Your task to perform on an android device: Open Google Chrome Image 0: 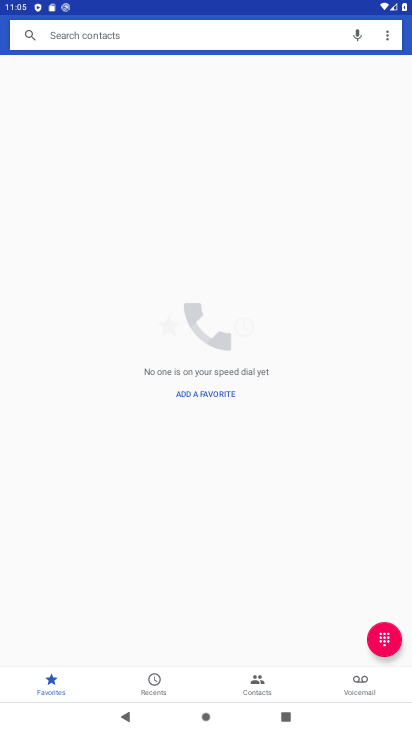
Step 0: press home button
Your task to perform on an android device: Open Google Chrome Image 1: 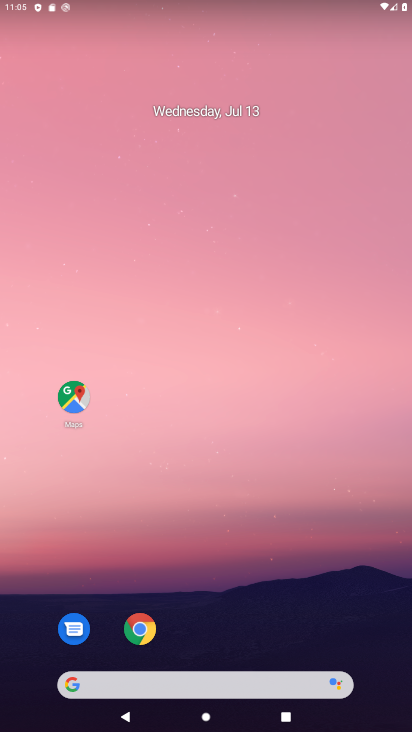
Step 1: click (144, 623)
Your task to perform on an android device: Open Google Chrome Image 2: 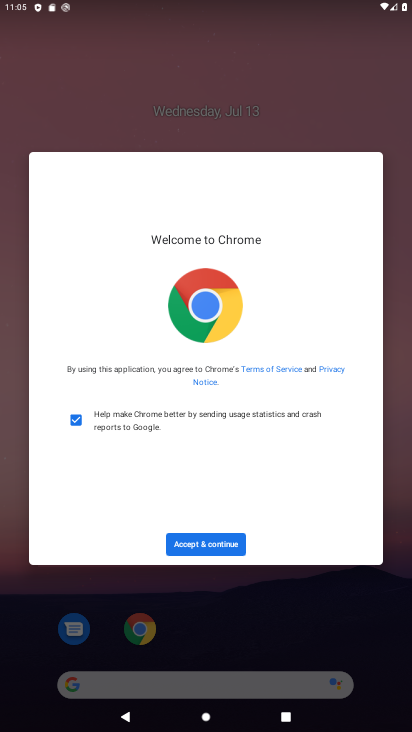
Step 2: click (204, 540)
Your task to perform on an android device: Open Google Chrome Image 3: 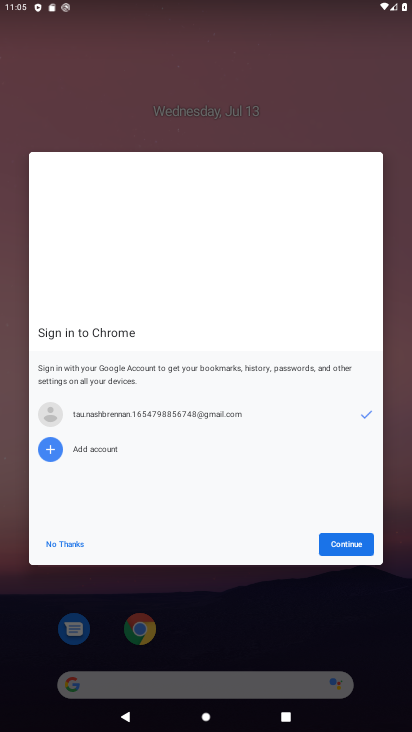
Step 3: click (336, 552)
Your task to perform on an android device: Open Google Chrome Image 4: 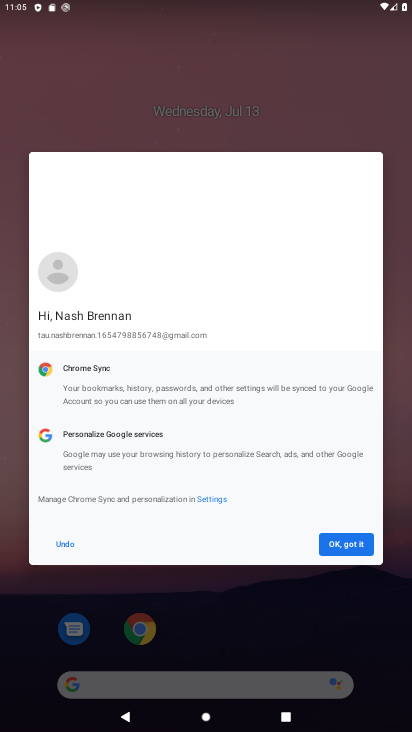
Step 4: click (336, 552)
Your task to perform on an android device: Open Google Chrome Image 5: 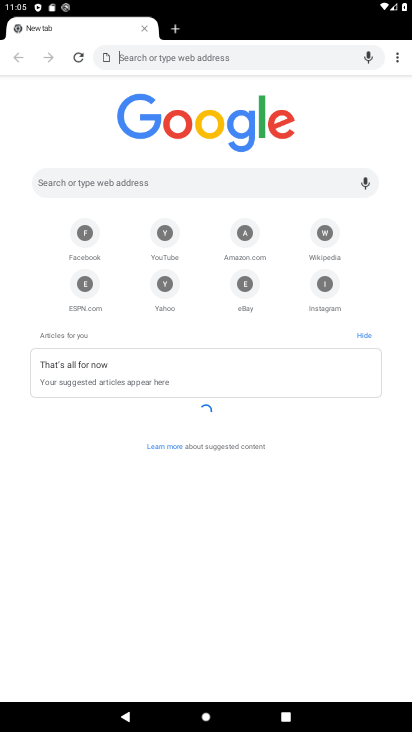
Step 5: task complete